Your task to perform on an android device: What's the weather going to be tomorrow? Image 0: 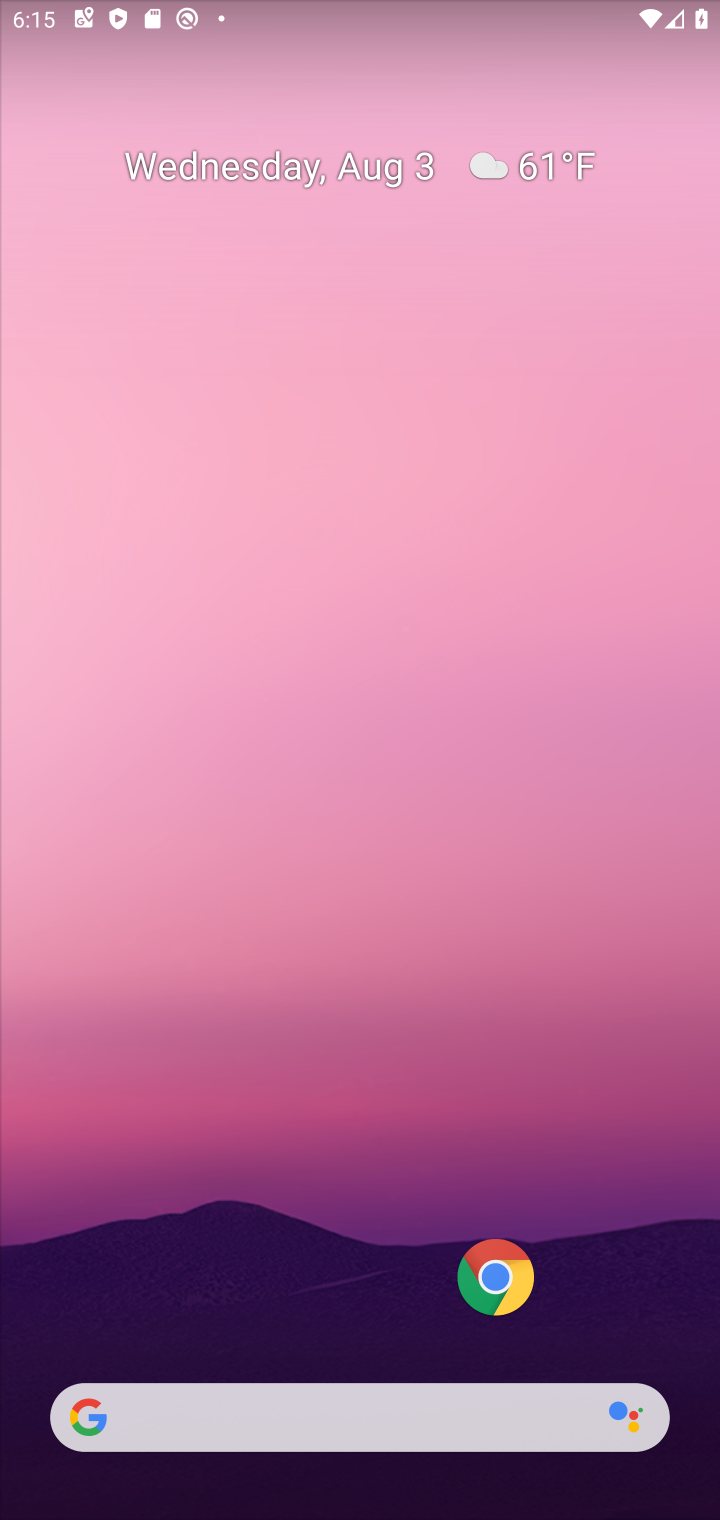
Step 0: drag from (184, 1180) to (390, 14)
Your task to perform on an android device: What's the weather going to be tomorrow? Image 1: 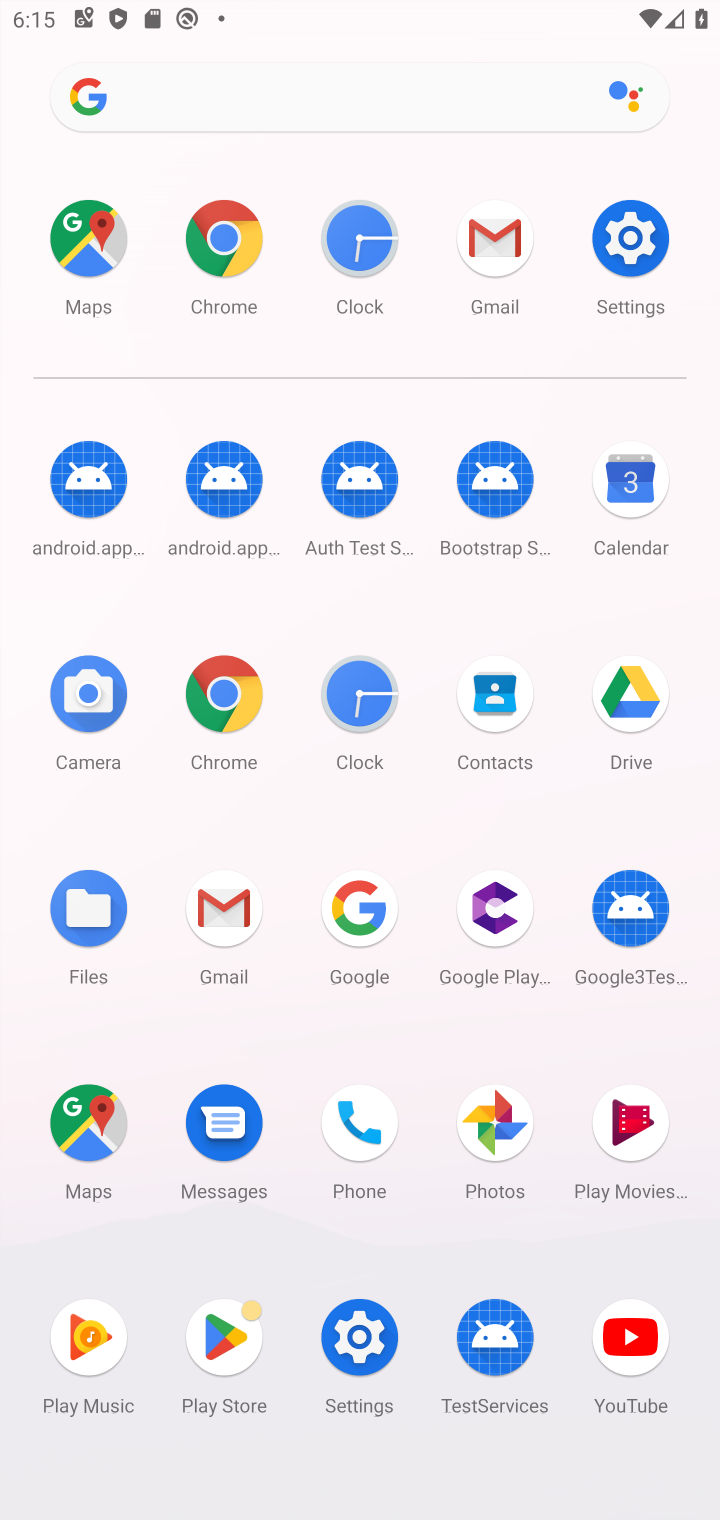
Step 1: click (370, 107)
Your task to perform on an android device: What's the weather going to be tomorrow? Image 2: 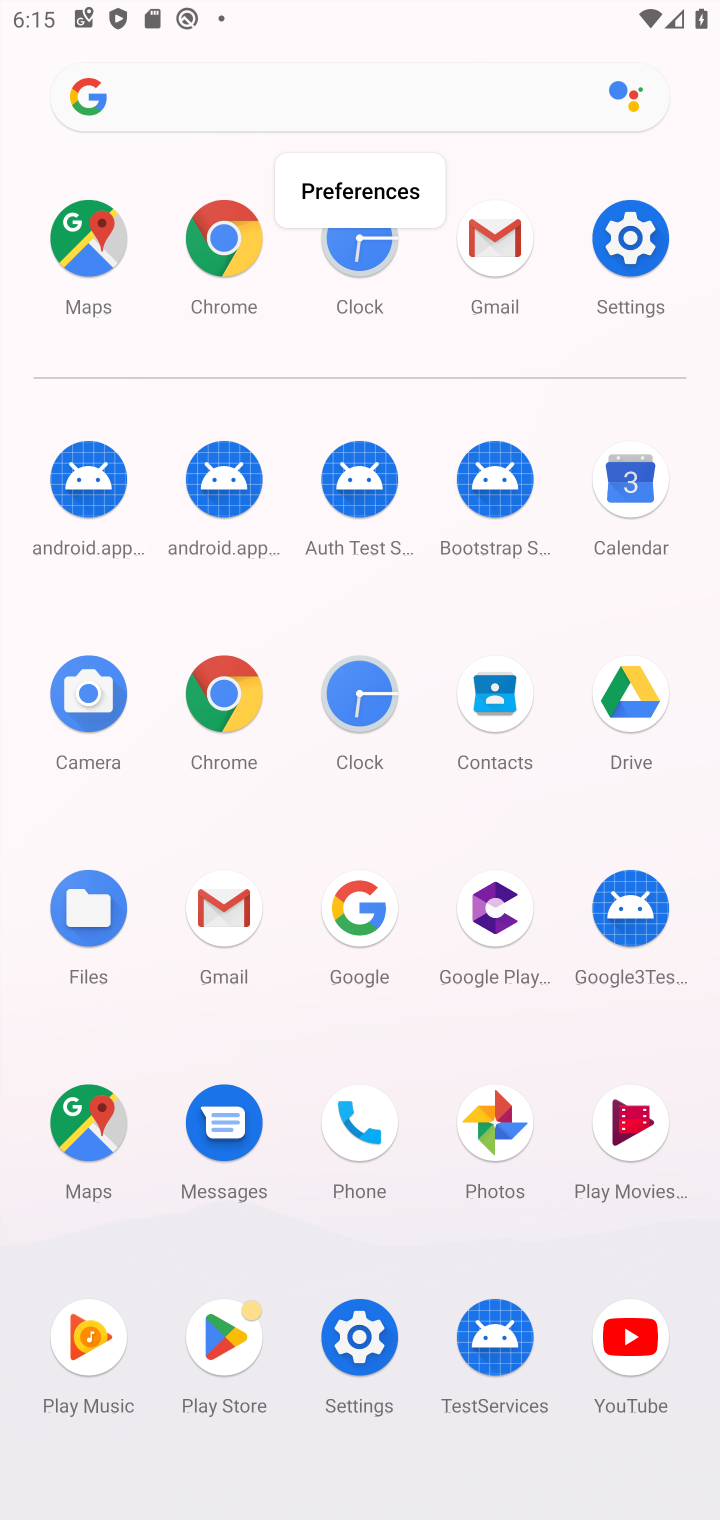
Step 2: click (293, 91)
Your task to perform on an android device: What's the weather going to be tomorrow? Image 3: 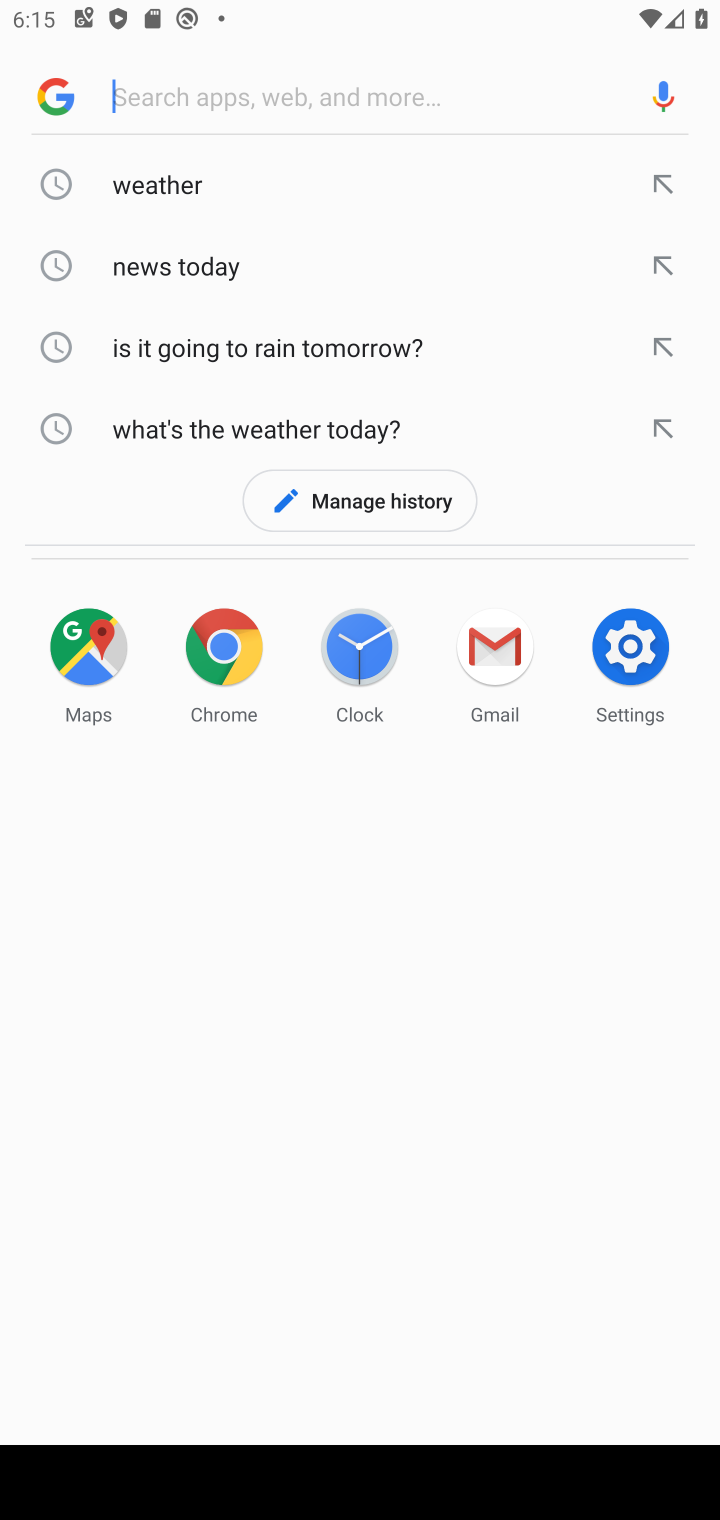
Step 3: click (188, 189)
Your task to perform on an android device: What's the weather going to be tomorrow? Image 4: 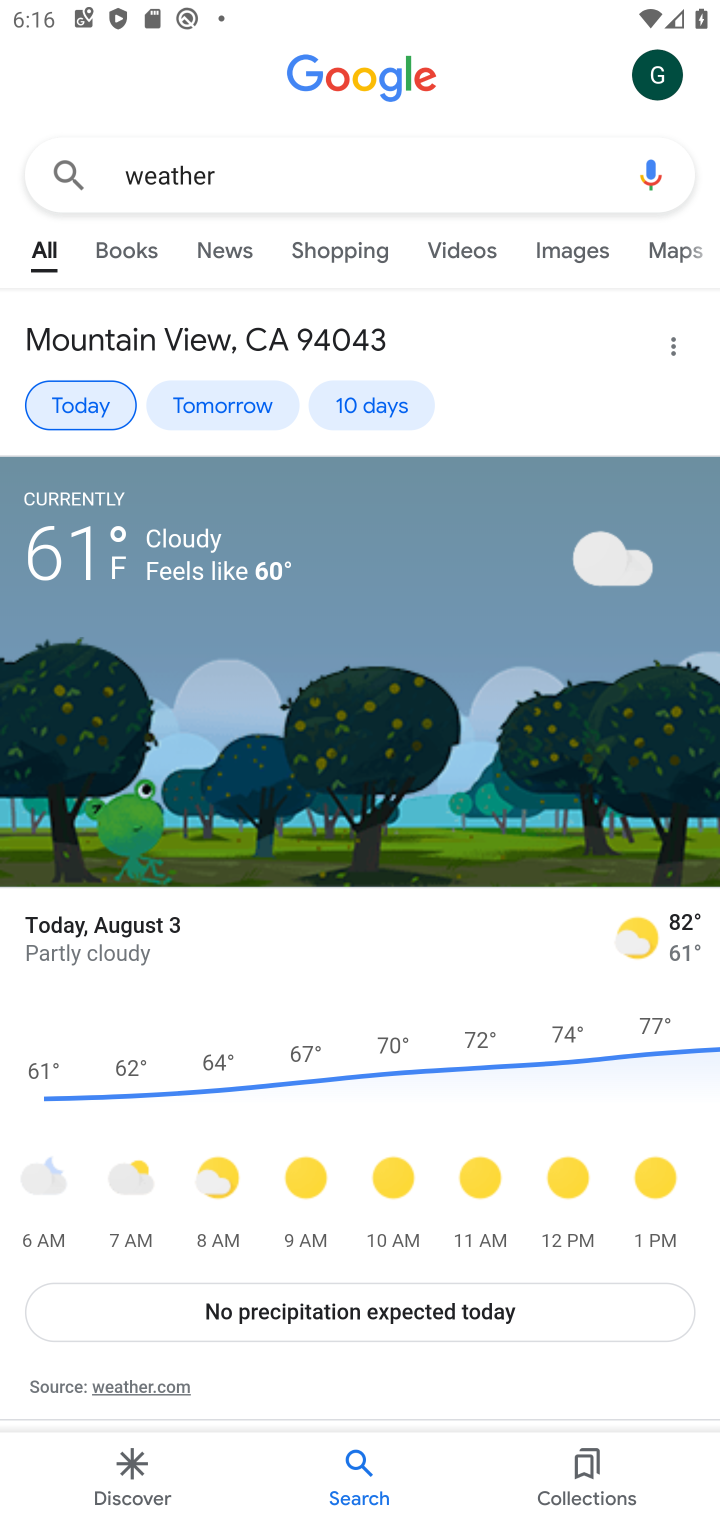
Step 4: click (115, 435)
Your task to perform on an android device: What's the weather going to be tomorrow? Image 5: 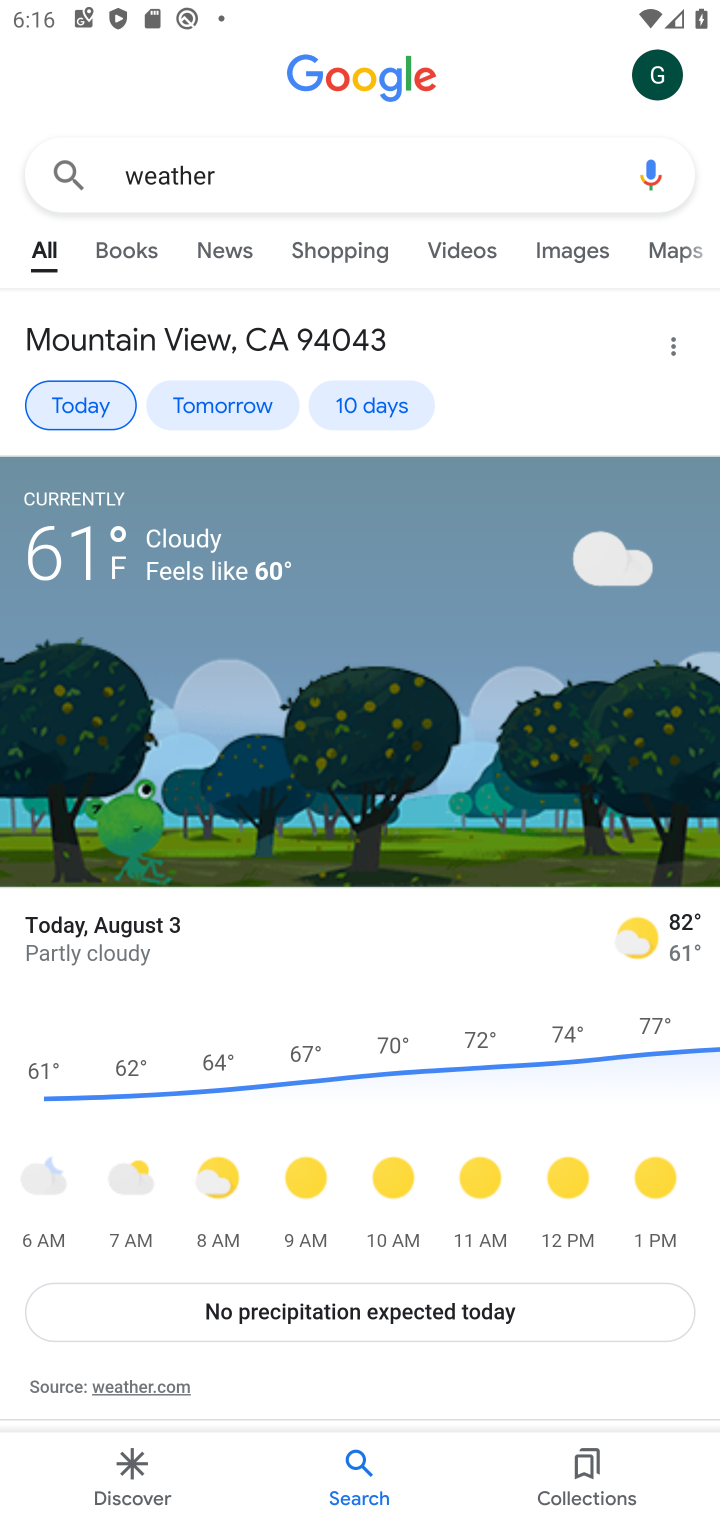
Step 5: click (216, 382)
Your task to perform on an android device: What's the weather going to be tomorrow? Image 6: 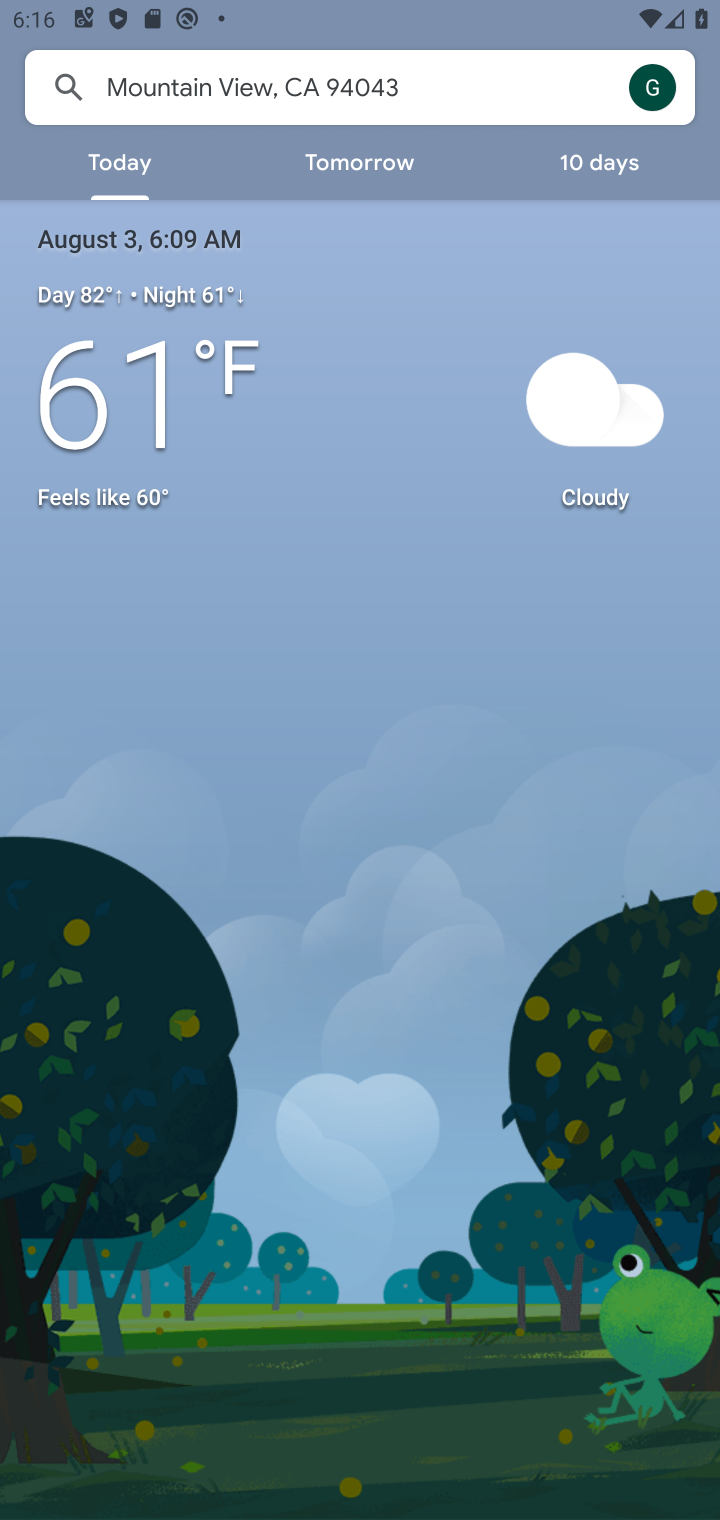
Step 6: click (335, 131)
Your task to perform on an android device: What's the weather going to be tomorrow? Image 7: 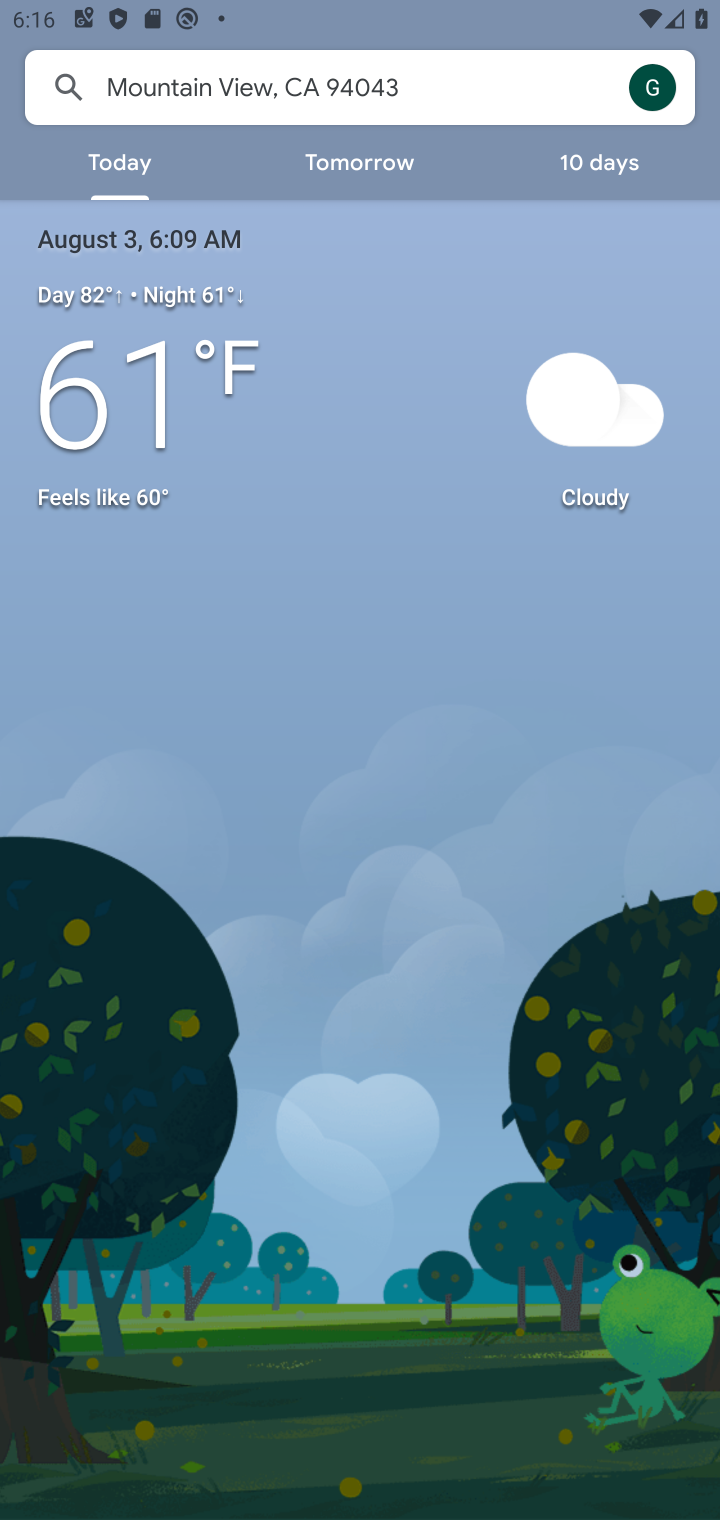
Step 7: click (354, 164)
Your task to perform on an android device: What's the weather going to be tomorrow? Image 8: 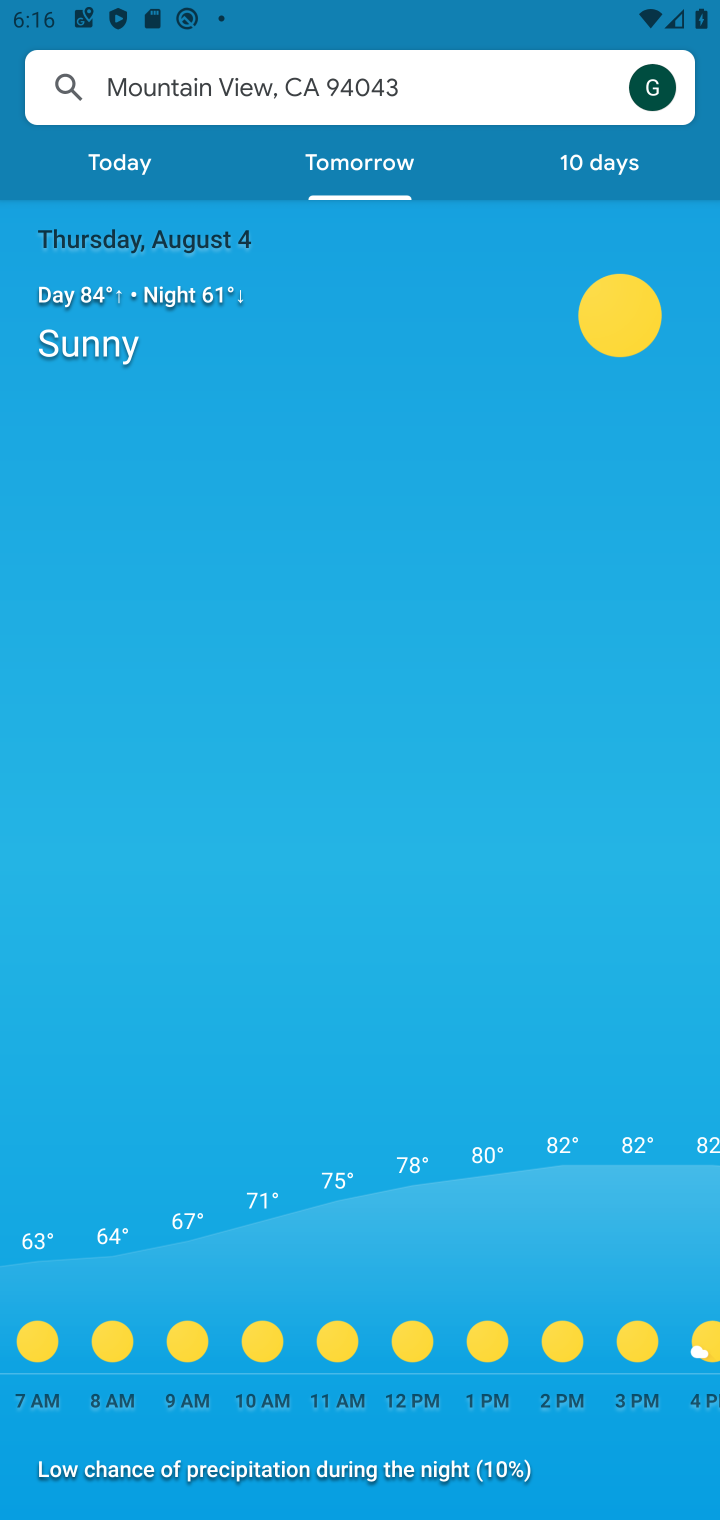
Step 8: task complete